Your task to perform on an android device: turn on priority inbox in the gmail app Image 0: 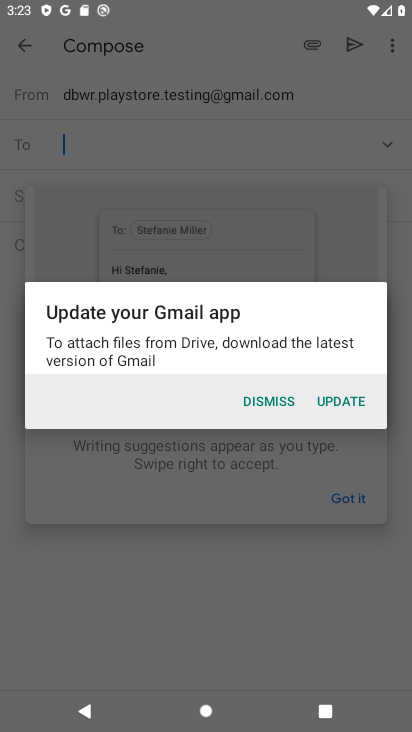
Step 0: press home button
Your task to perform on an android device: turn on priority inbox in the gmail app Image 1: 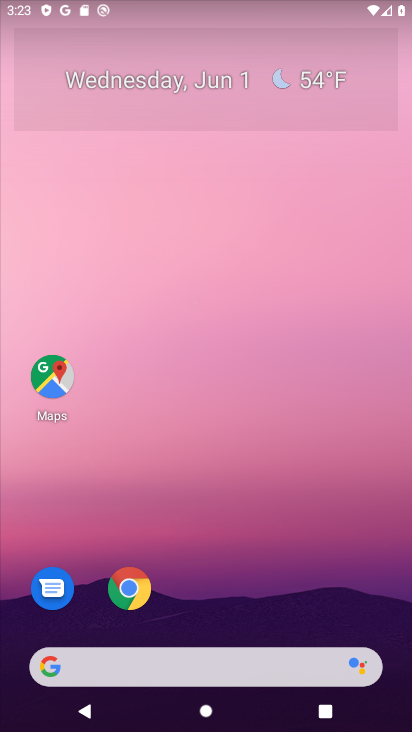
Step 1: drag from (241, 599) to (287, 70)
Your task to perform on an android device: turn on priority inbox in the gmail app Image 2: 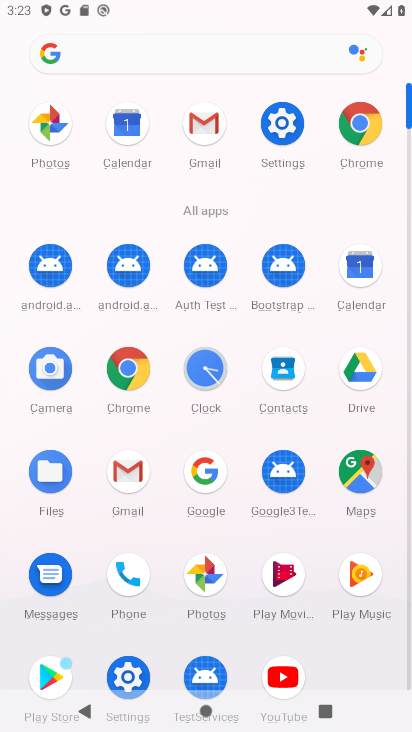
Step 2: click (125, 476)
Your task to perform on an android device: turn on priority inbox in the gmail app Image 3: 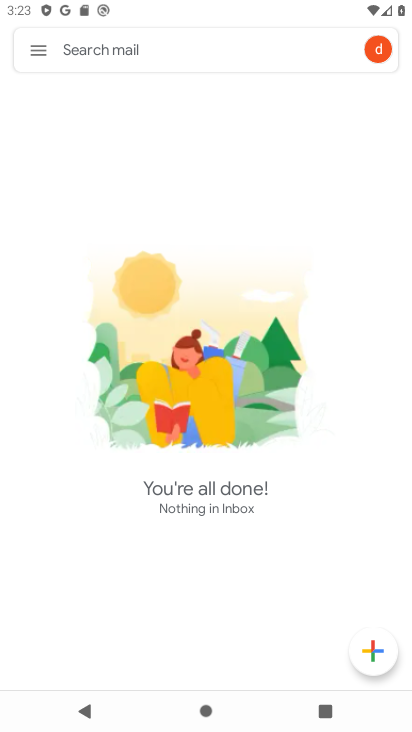
Step 3: click (30, 43)
Your task to perform on an android device: turn on priority inbox in the gmail app Image 4: 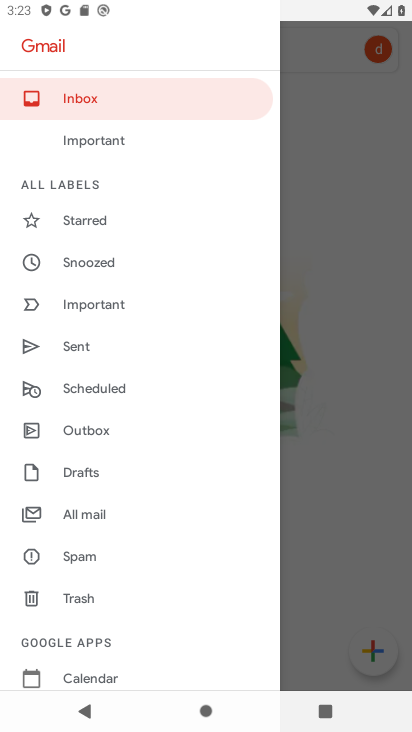
Step 4: drag from (102, 653) to (135, 440)
Your task to perform on an android device: turn on priority inbox in the gmail app Image 5: 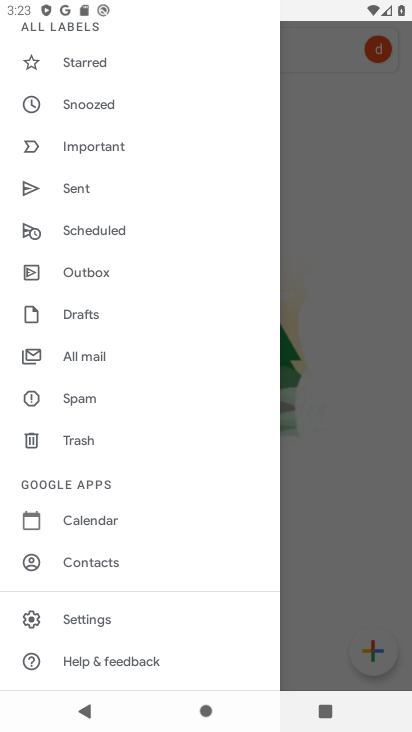
Step 5: click (77, 615)
Your task to perform on an android device: turn on priority inbox in the gmail app Image 6: 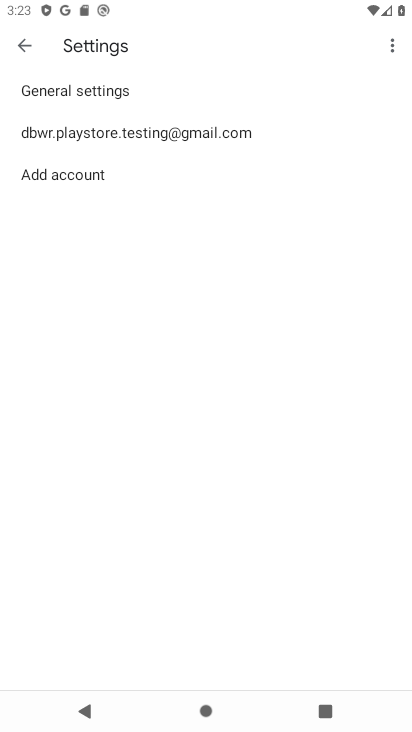
Step 6: click (96, 134)
Your task to perform on an android device: turn on priority inbox in the gmail app Image 7: 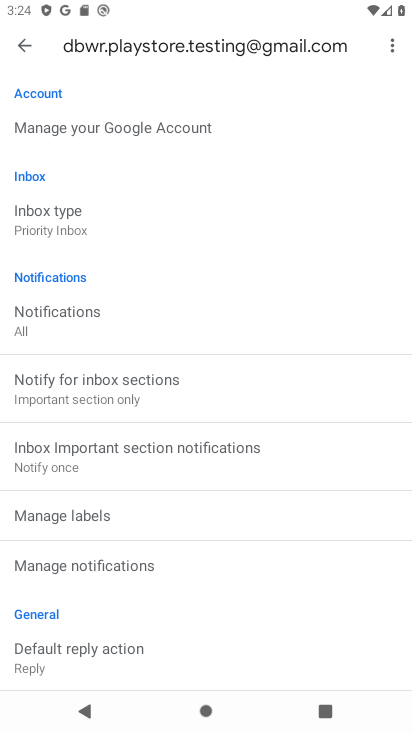
Step 7: task complete